Your task to perform on an android device: turn off location history Image 0: 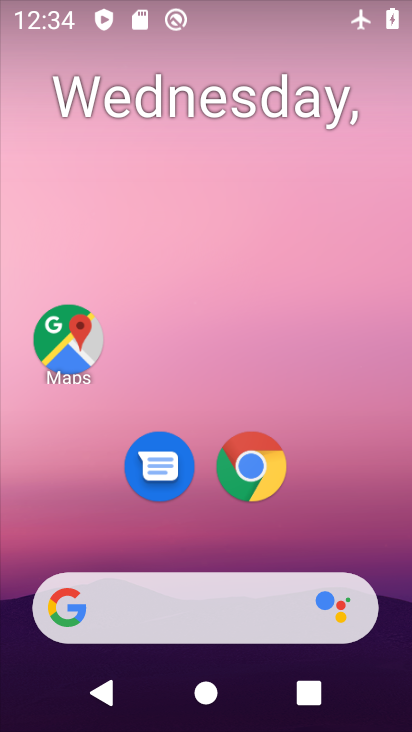
Step 0: drag from (361, 541) to (276, 7)
Your task to perform on an android device: turn off location history Image 1: 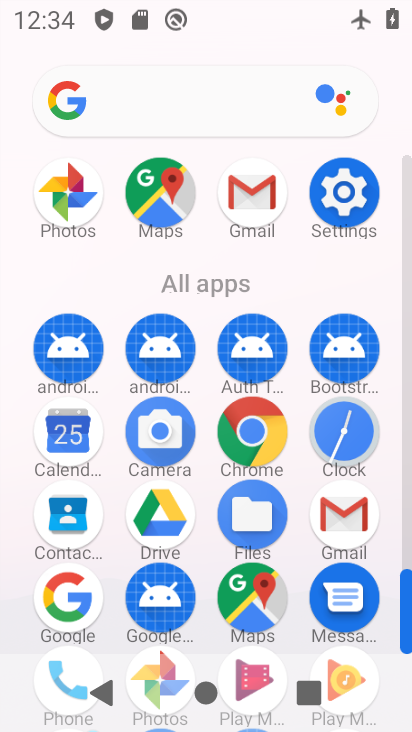
Step 1: click (329, 194)
Your task to perform on an android device: turn off location history Image 2: 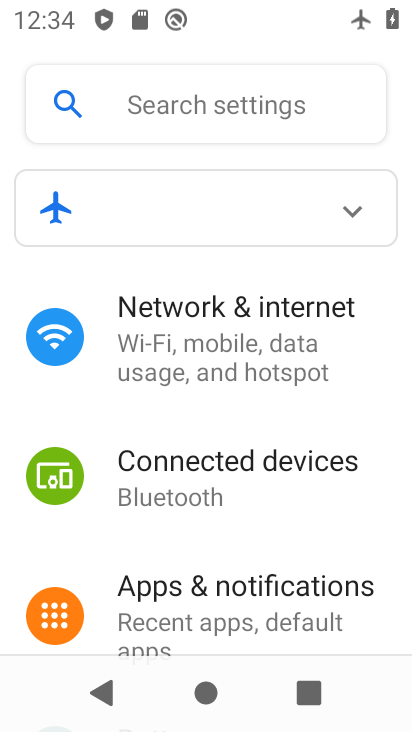
Step 2: drag from (307, 625) to (389, 236)
Your task to perform on an android device: turn off location history Image 3: 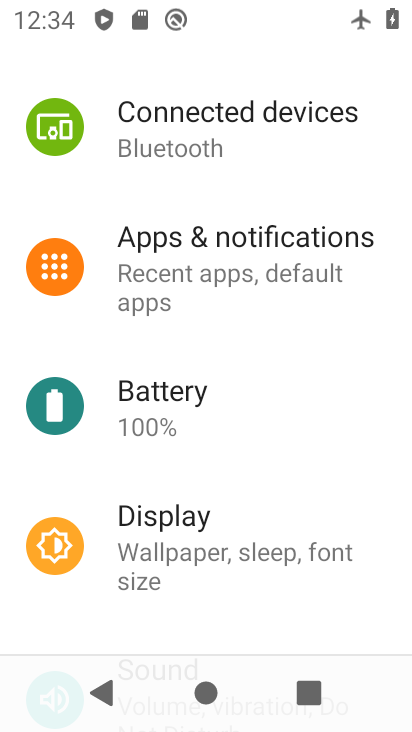
Step 3: drag from (195, 470) to (206, 55)
Your task to perform on an android device: turn off location history Image 4: 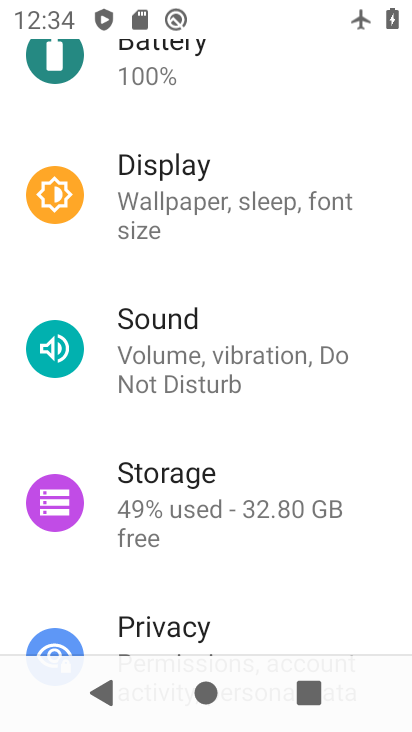
Step 4: drag from (197, 628) to (207, 79)
Your task to perform on an android device: turn off location history Image 5: 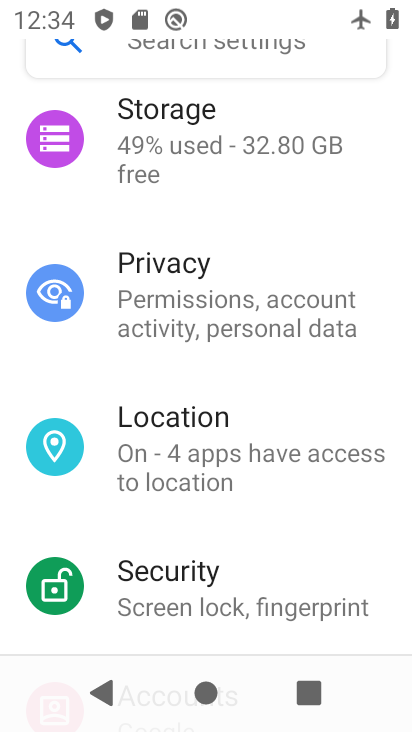
Step 5: click (264, 421)
Your task to perform on an android device: turn off location history Image 6: 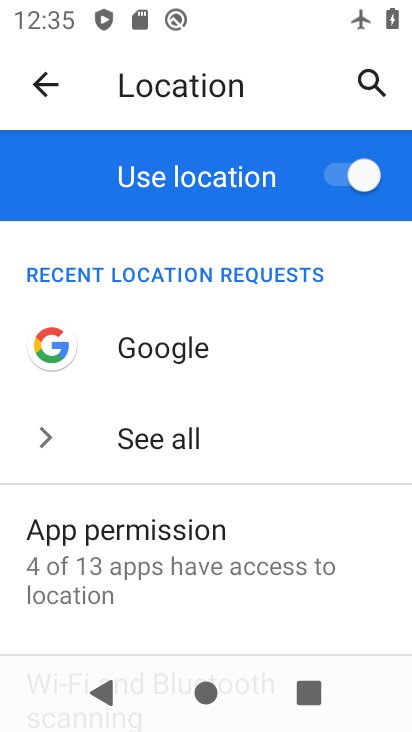
Step 6: drag from (301, 512) to (384, 155)
Your task to perform on an android device: turn off location history Image 7: 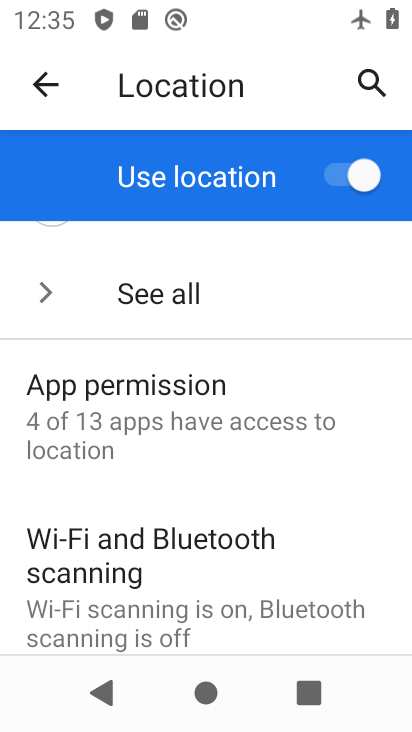
Step 7: drag from (152, 520) to (1, 24)
Your task to perform on an android device: turn off location history Image 8: 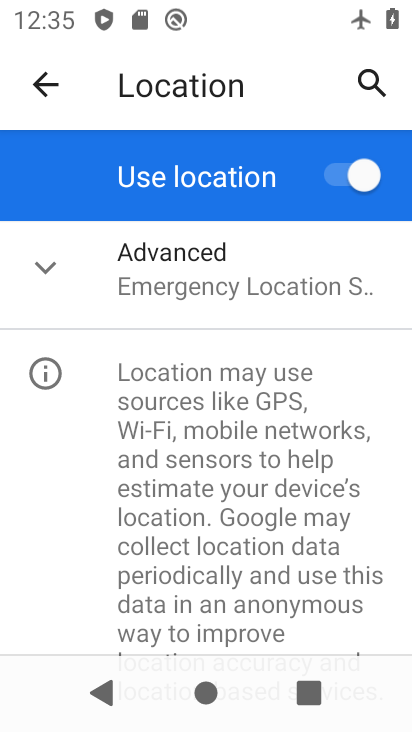
Step 8: click (201, 256)
Your task to perform on an android device: turn off location history Image 9: 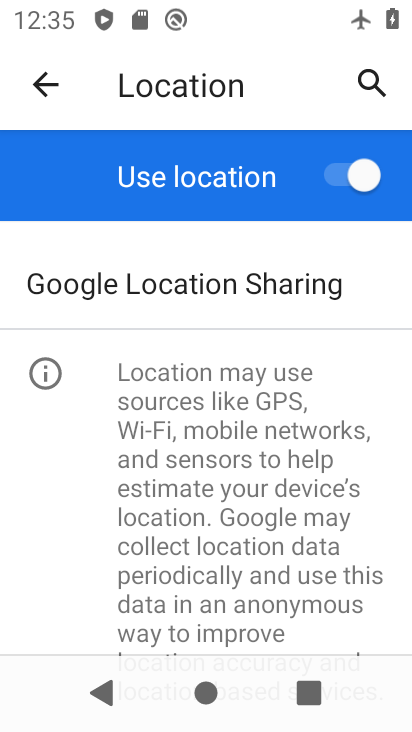
Step 9: drag from (239, 411) to (66, 50)
Your task to perform on an android device: turn off location history Image 10: 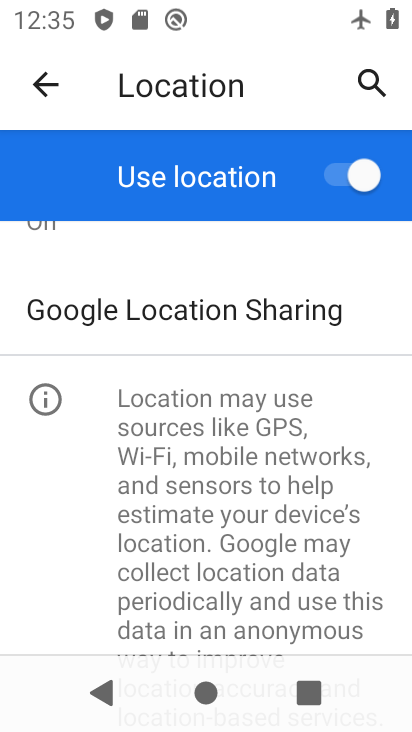
Step 10: drag from (156, 627) to (135, 35)
Your task to perform on an android device: turn off location history Image 11: 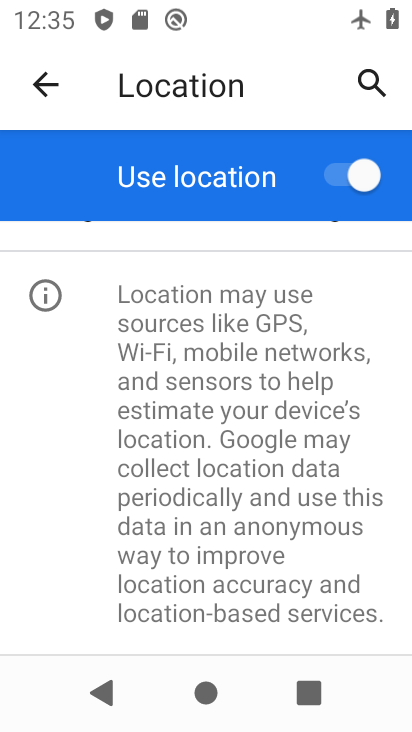
Step 11: drag from (129, 205) to (217, 714)
Your task to perform on an android device: turn off location history Image 12: 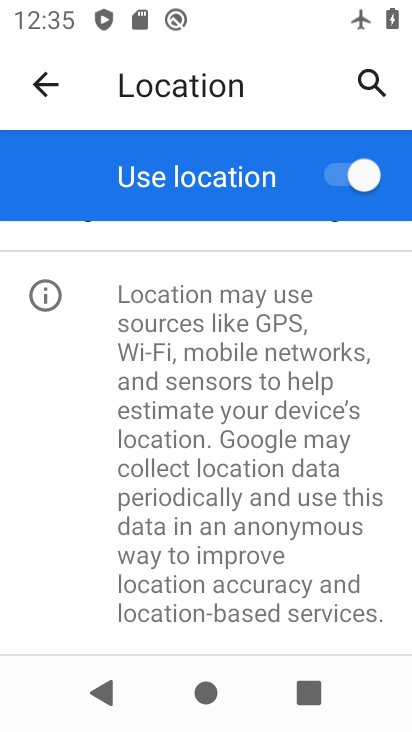
Step 12: drag from (267, 250) to (225, 616)
Your task to perform on an android device: turn off location history Image 13: 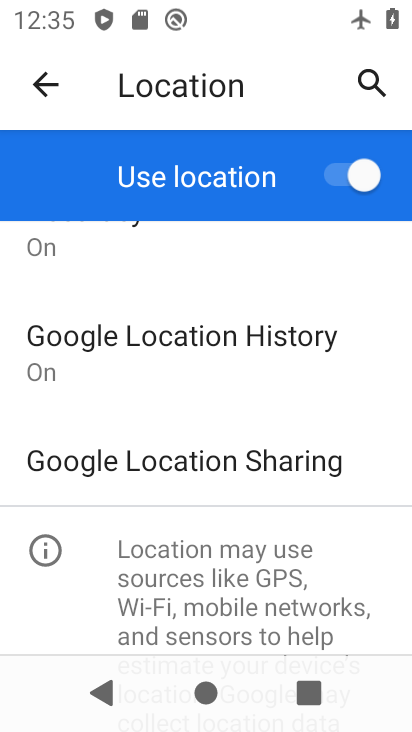
Step 13: click (216, 342)
Your task to perform on an android device: turn off location history Image 14: 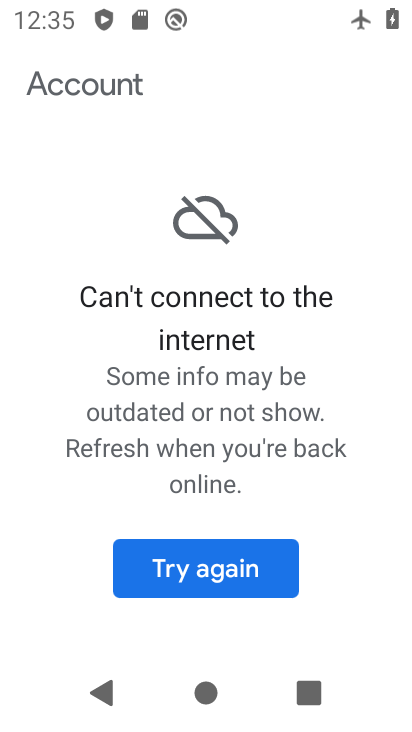
Step 14: task complete